Your task to perform on an android device: turn off airplane mode Image 0: 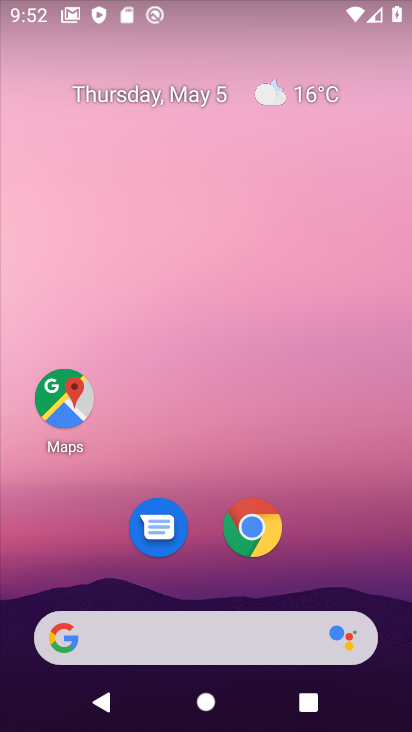
Step 0: drag from (25, 655) to (269, 246)
Your task to perform on an android device: turn off airplane mode Image 1: 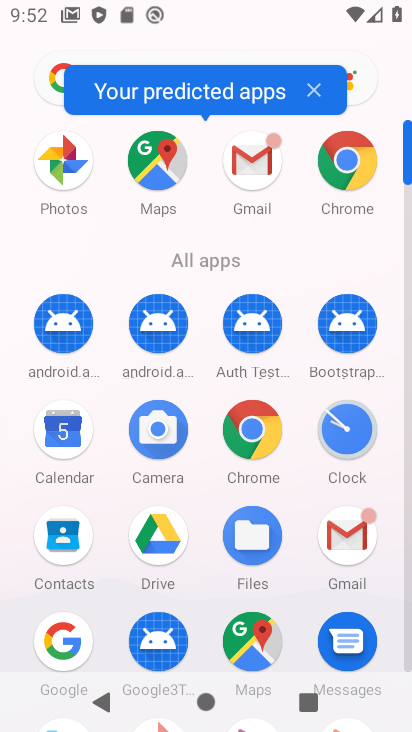
Step 1: drag from (119, 632) to (249, 268)
Your task to perform on an android device: turn off airplane mode Image 2: 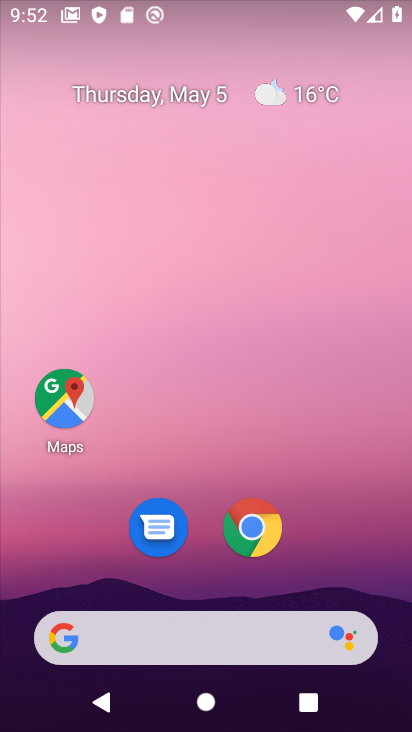
Step 2: drag from (1, 615) to (212, 266)
Your task to perform on an android device: turn off airplane mode Image 3: 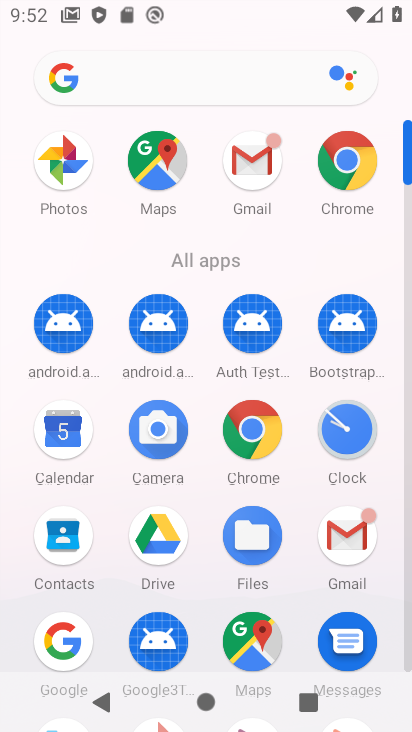
Step 3: drag from (147, 610) to (319, 210)
Your task to perform on an android device: turn off airplane mode Image 4: 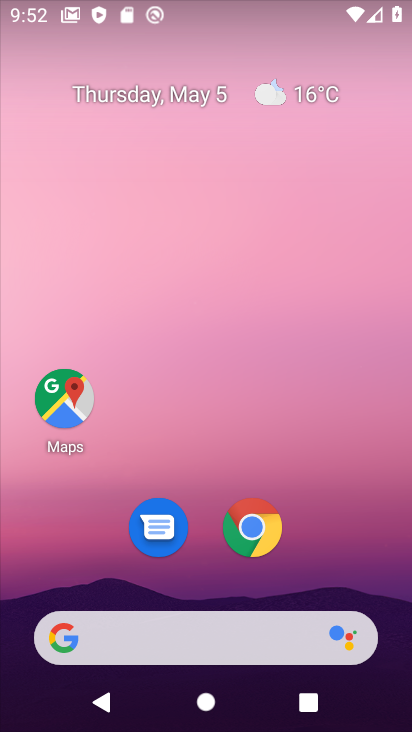
Step 4: drag from (22, 634) to (208, 231)
Your task to perform on an android device: turn off airplane mode Image 5: 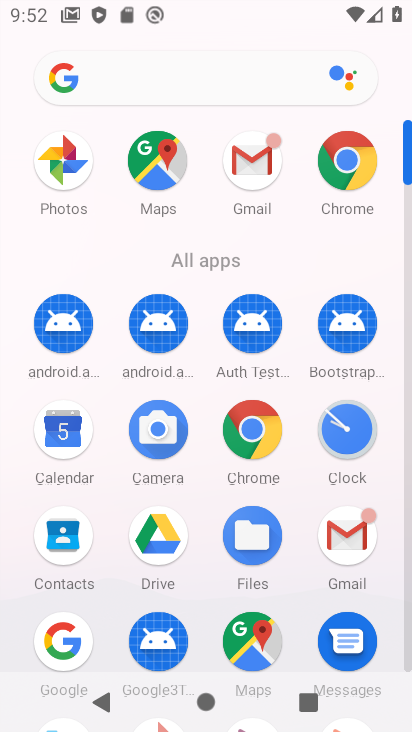
Step 5: drag from (15, 646) to (157, 232)
Your task to perform on an android device: turn off airplane mode Image 6: 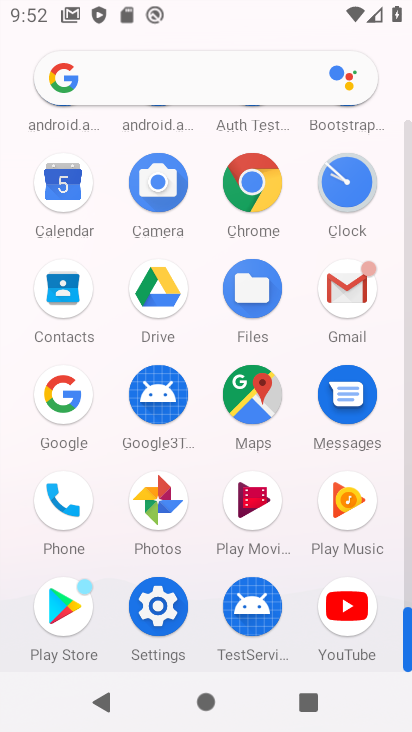
Step 6: click (167, 600)
Your task to perform on an android device: turn off airplane mode Image 7: 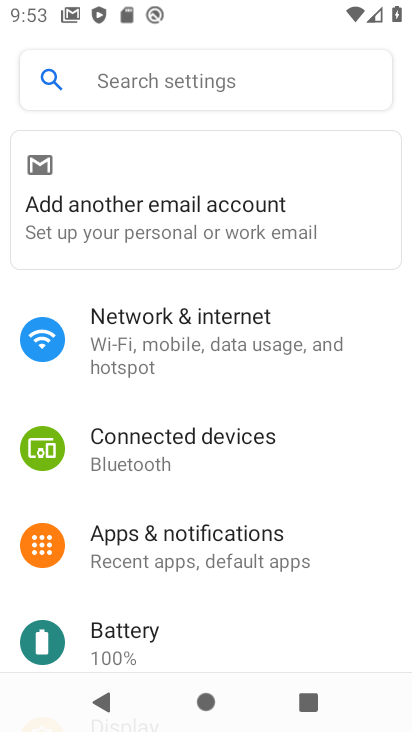
Step 7: click (285, 333)
Your task to perform on an android device: turn off airplane mode Image 8: 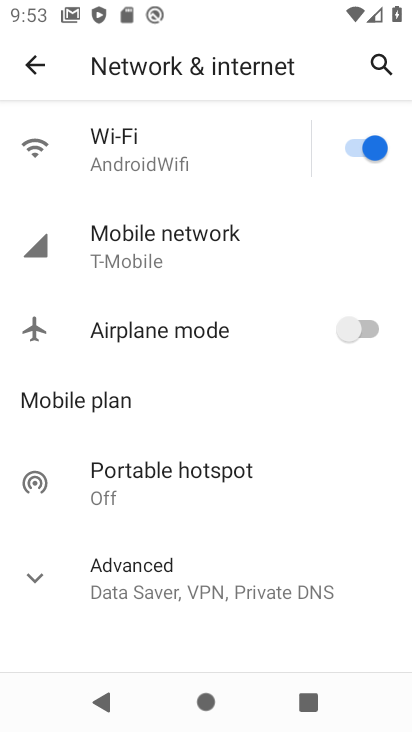
Step 8: task complete